Your task to perform on an android device: toggle javascript in the chrome app Image 0: 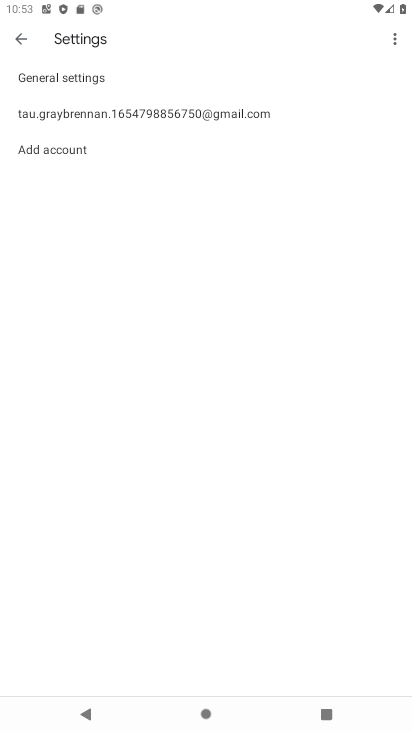
Step 0: press home button
Your task to perform on an android device: toggle javascript in the chrome app Image 1: 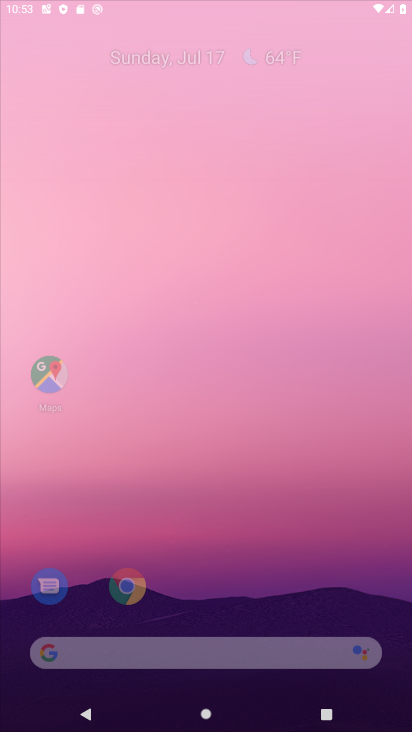
Step 1: drag from (355, 619) to (256, 79)
Your task to perform on an android device: toggle javascript in the chrome app Image 2: 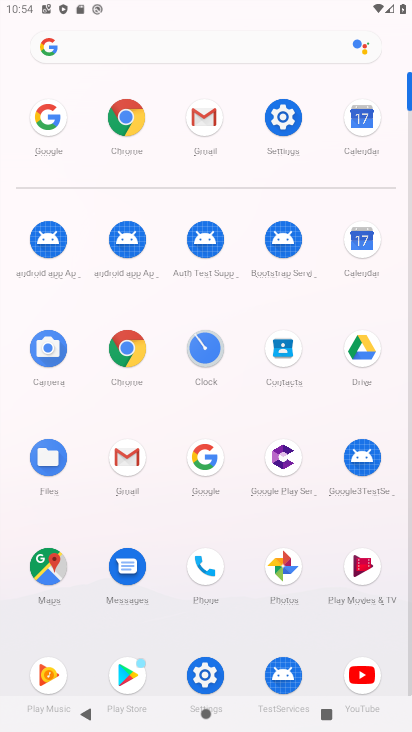
Step 2: click (133, 351)
Your task to perform on an android device: toggle javascript in the chrome app Image 3: 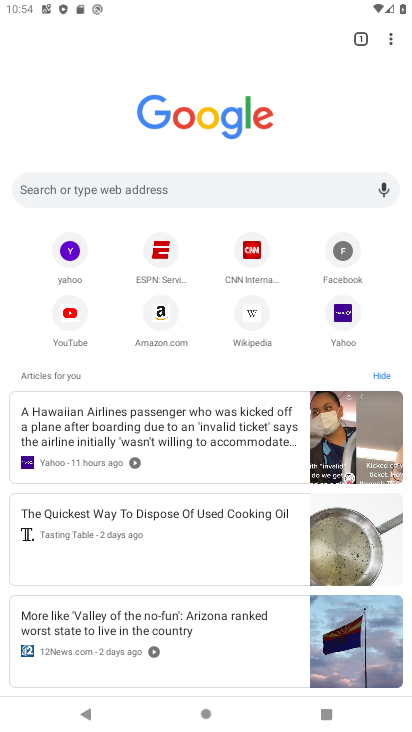
Step 3: click (392, 31)
Your task to perform on an android device: toggle javascript in the chrome app Image 4: 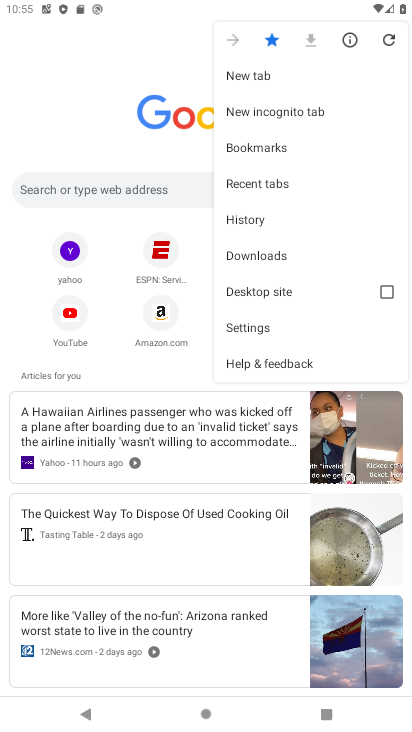
Step 4: click (274, 329)
Your task to perform on an android device: toggle javascript in the chrome app Image 5: 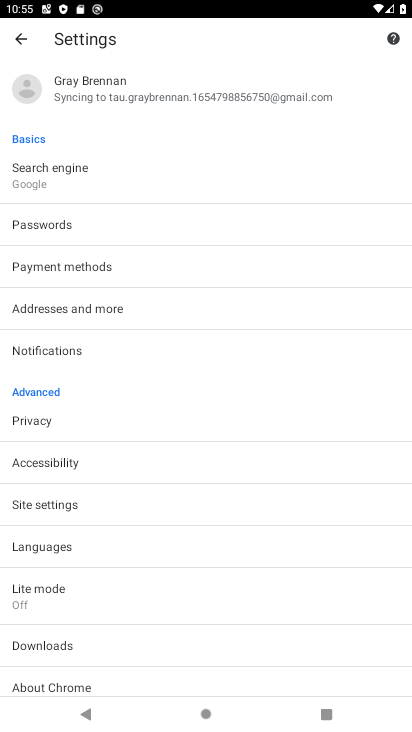
Step 5: click (111, 510)
Your task to perform on an android device: toggle javascript in the chrome app Image 6: 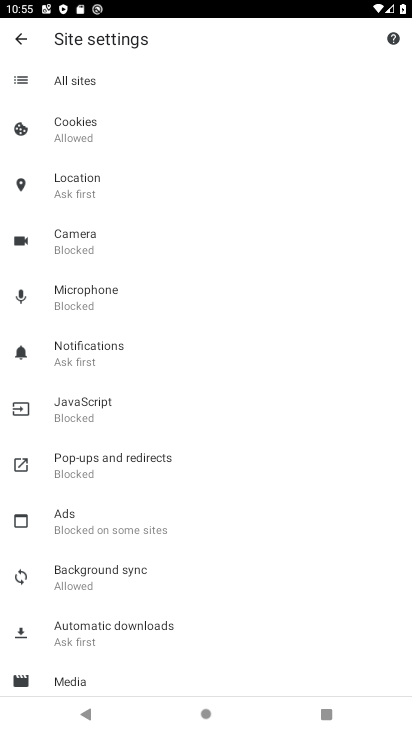
Step 6: click (127, 414)
Your task to perform on an android device: toggle javascript in the chrome app Image 7: 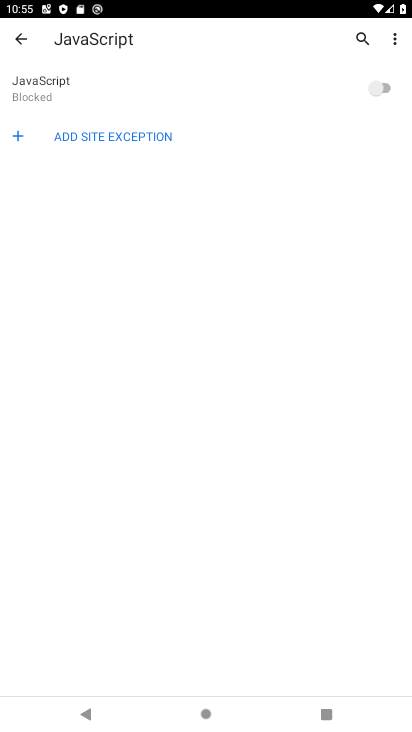
Step 7: click (359, 89)
Your task to perform on an android device: toggle javascript in the chrome app Image 8: 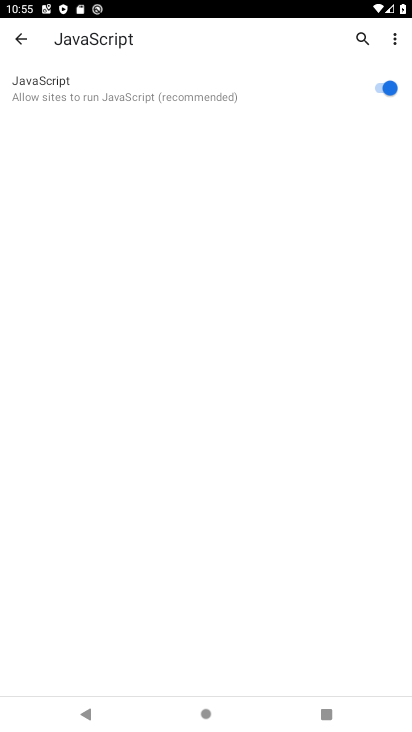
Step 8: task complete